Your task to perform on an android device: toggle translation in the chrome app Image 0: 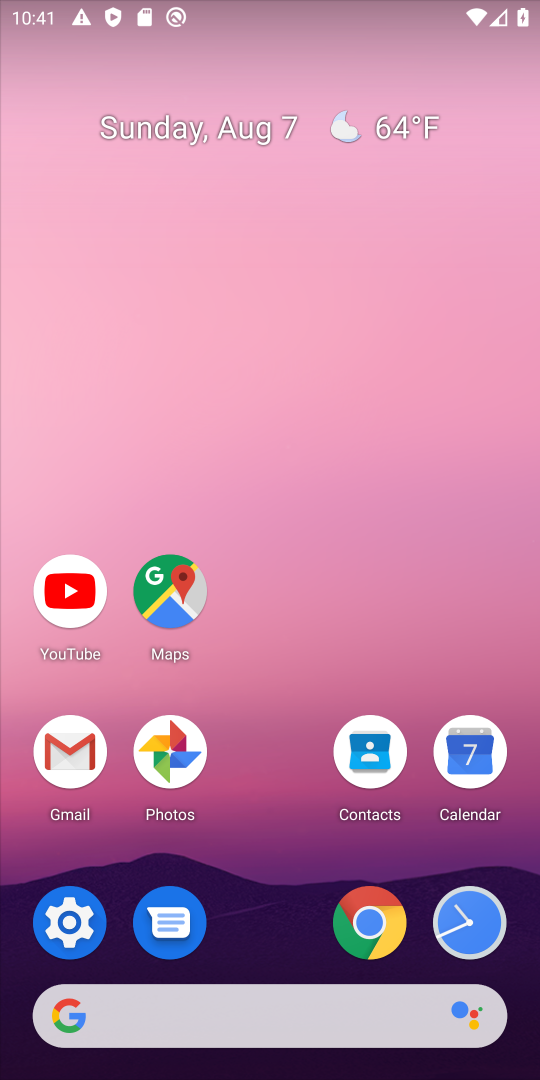
Step 0: click (373, 916)
Your task to perform on an android device: toggle translation in the chrome app Image 1: 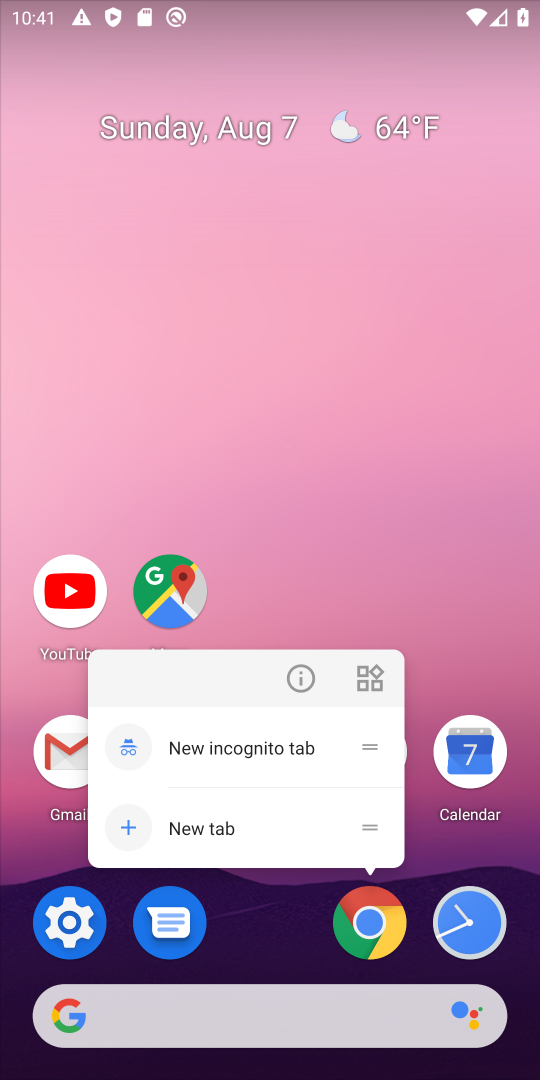
Step 1: click (375, 923)
Your task to perform on an android device: toggle translation in the chrome app Image 2: 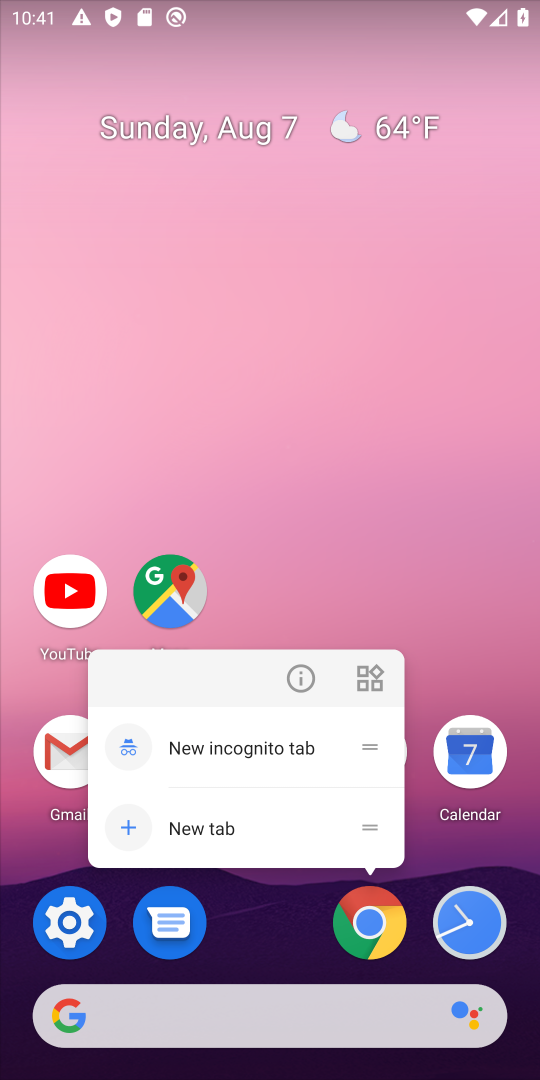
Step 2: click (366, 907)
Your task to perform on an android device: toggle translation in the chrome app Image 3: 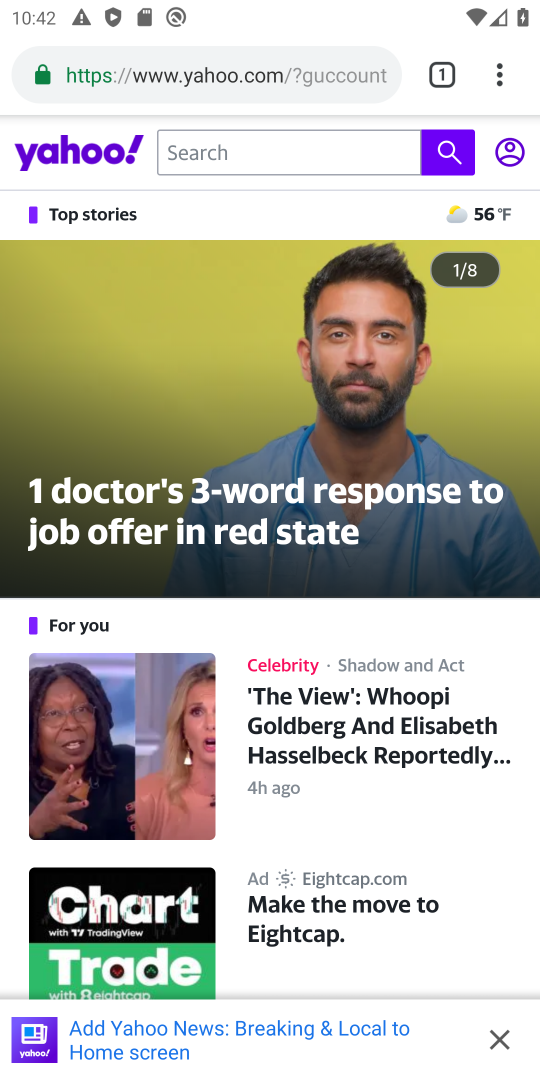
Step 3: click (496, 69)
Your task to perform on an android device: toggle translation in the chrome app Image 4: 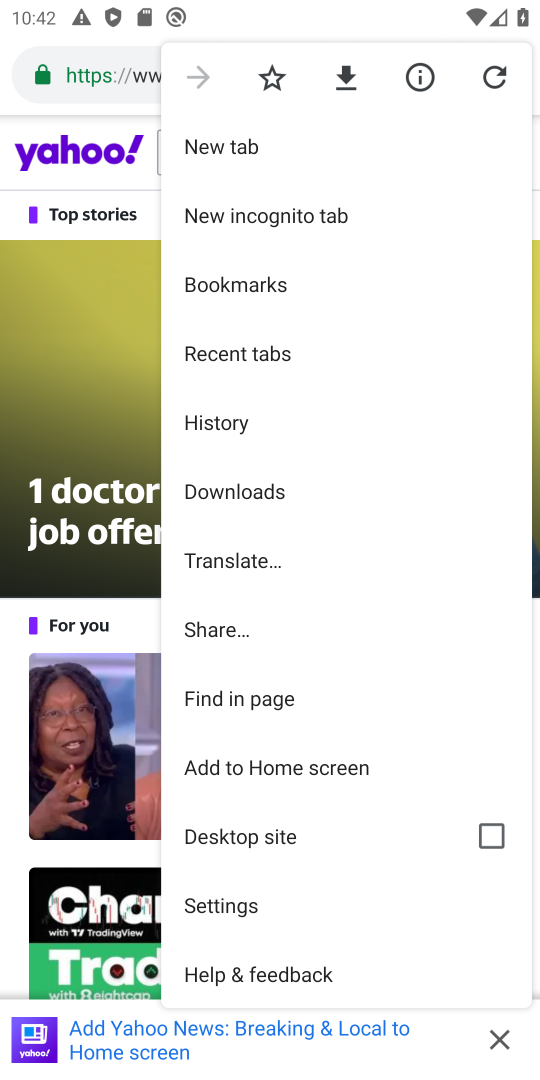
Step 4: click (225, 901)
Your task to perform on an android device: toggle translation in the chrome app Image 5: 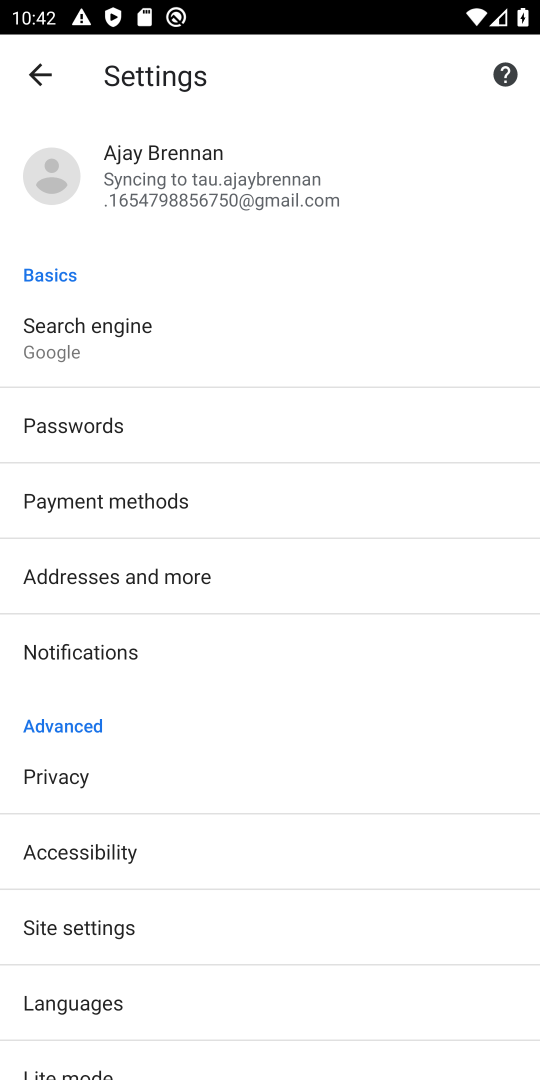
Step 5: click (101, 991)
Your task to perform on an android device: toggle translation in the chrome app Image 6: 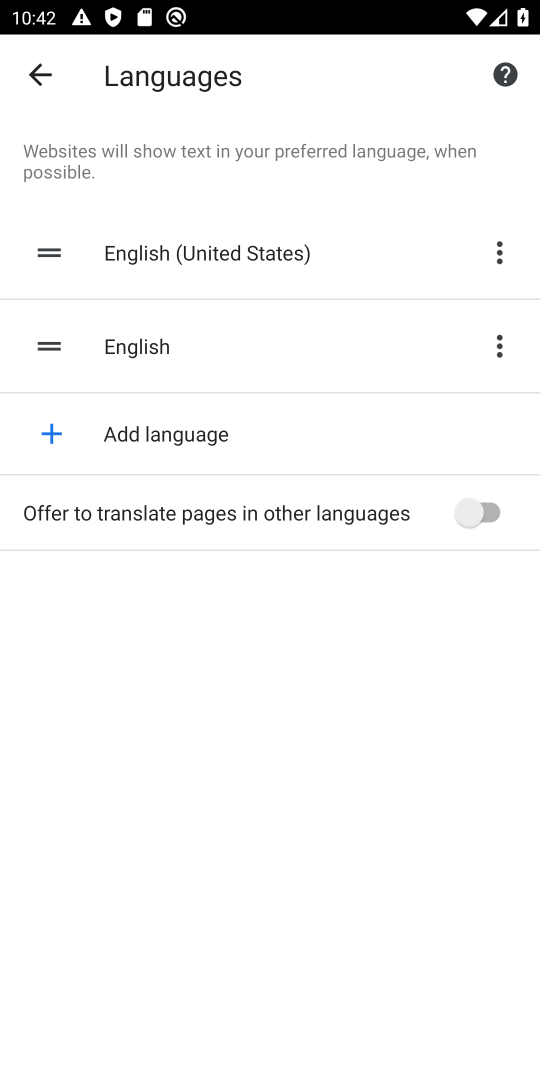
Step 6: click (476, 516)
Your task to perform on an android device: toggle translation in the chrome app Image 7: 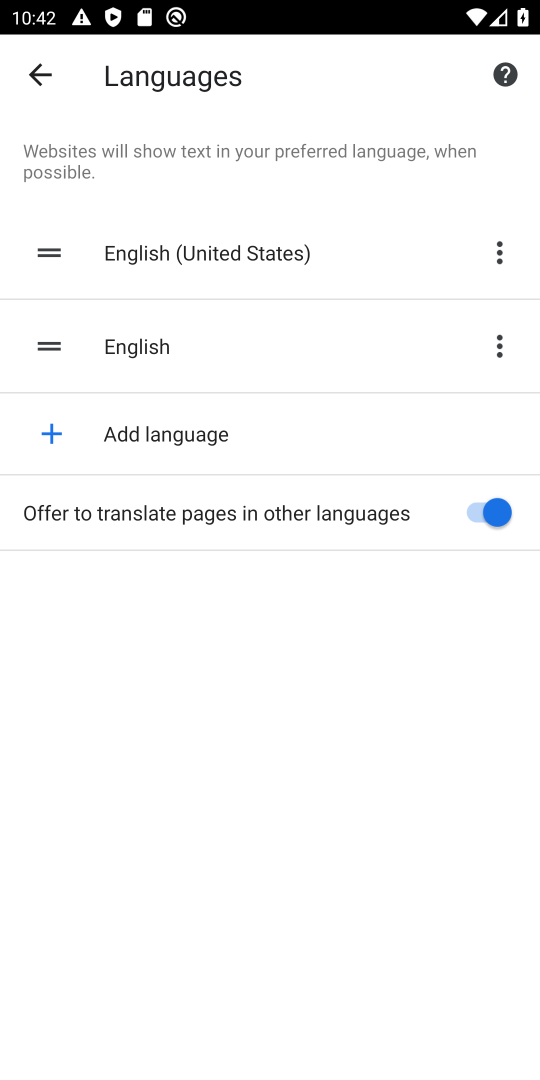
Step 7: task complete